Your task to perform on an android device: Search for pizza restaurants on Maps Image 0: 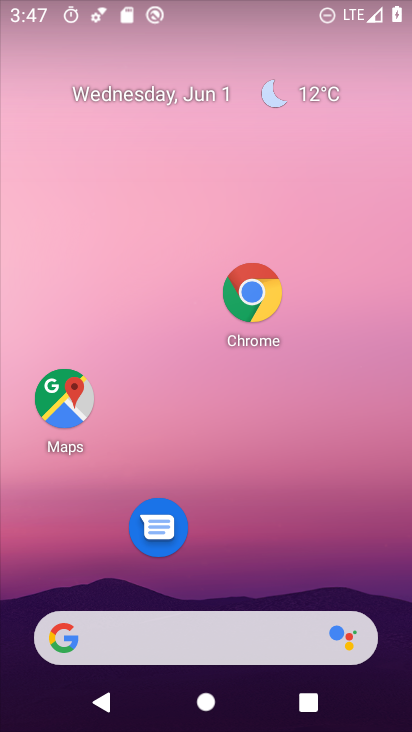
Step 0: drag from (230, 510) to (283, 69)
Your task to perform on an android device: Search for pizza restaurants on Maps Image 1: 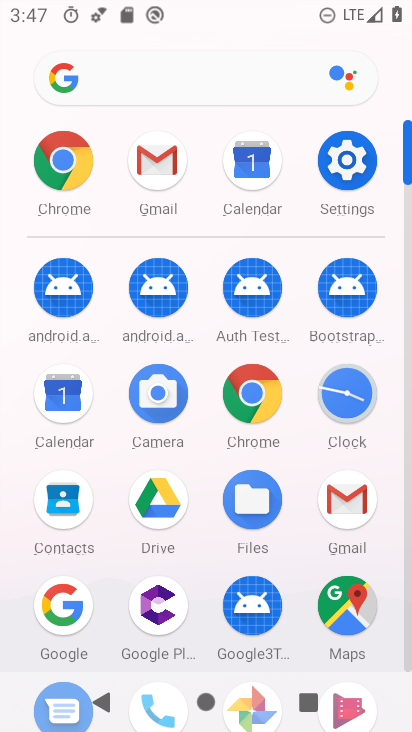
Step 1: click (351, 584)
Your task to perform on an android device: Search for pizza restaurants on Maps Image 2: 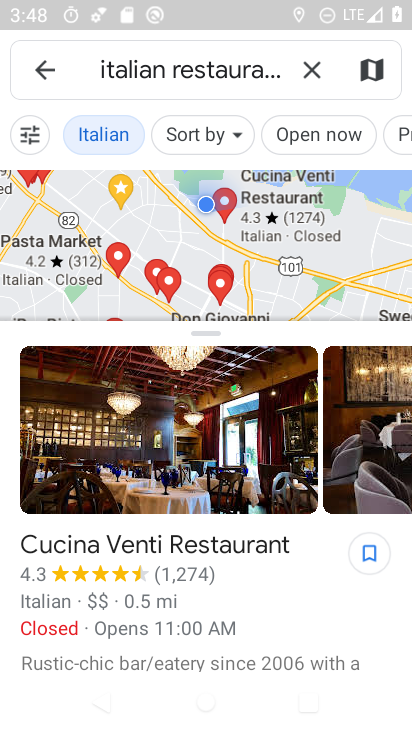
Step 2: click (309, 68)
Your task to perform on an android device: Search for pizza restaurants on Maps Image 3: 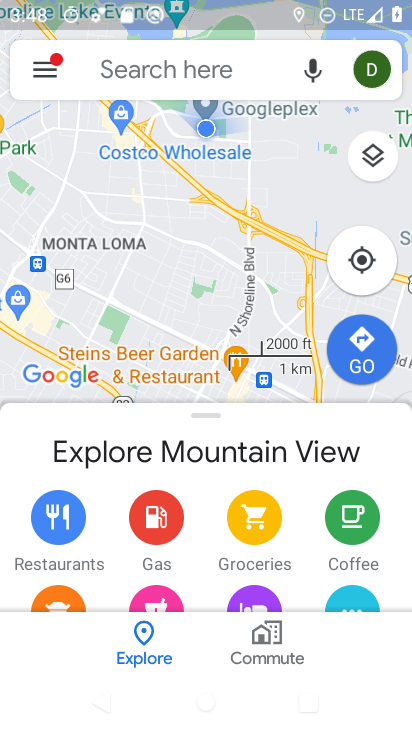
Step 3: click (256, 75)
Your task to perform on an android device: Search for pizza restaurants on Maps Image 4: 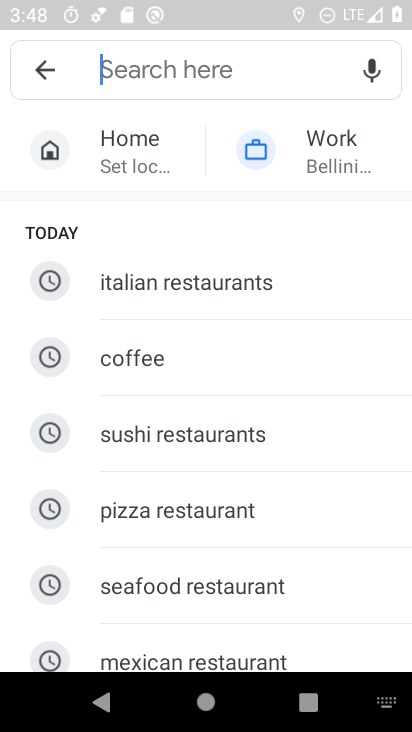
Step 4: click (265, 519)
Your task to perform on an android device: Search for pizza restaurants on Maps Image 5: 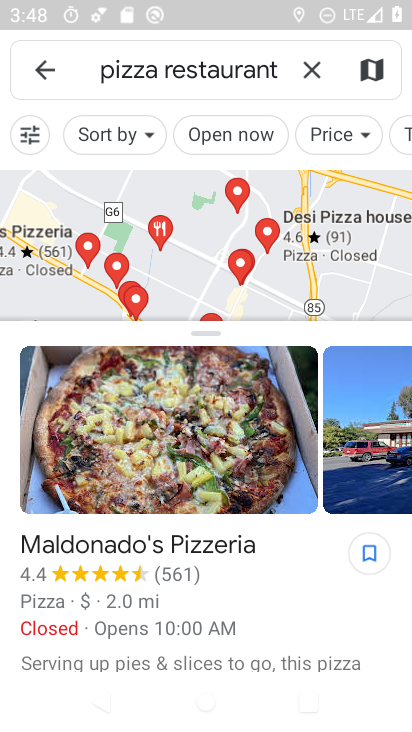
Step 5: task complete